Your task to perform on an android device: Is it going to rain today? Image 0: 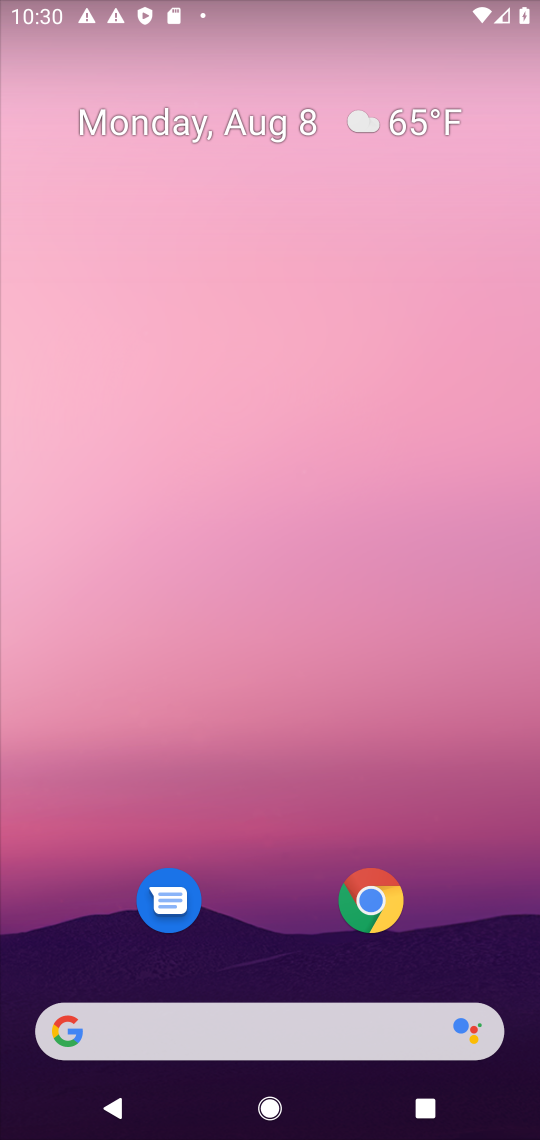
Step 0: drag from (255, 951) to (188, 1030)
Your task to perform on an android device: Is it going to rain today? Image 1: 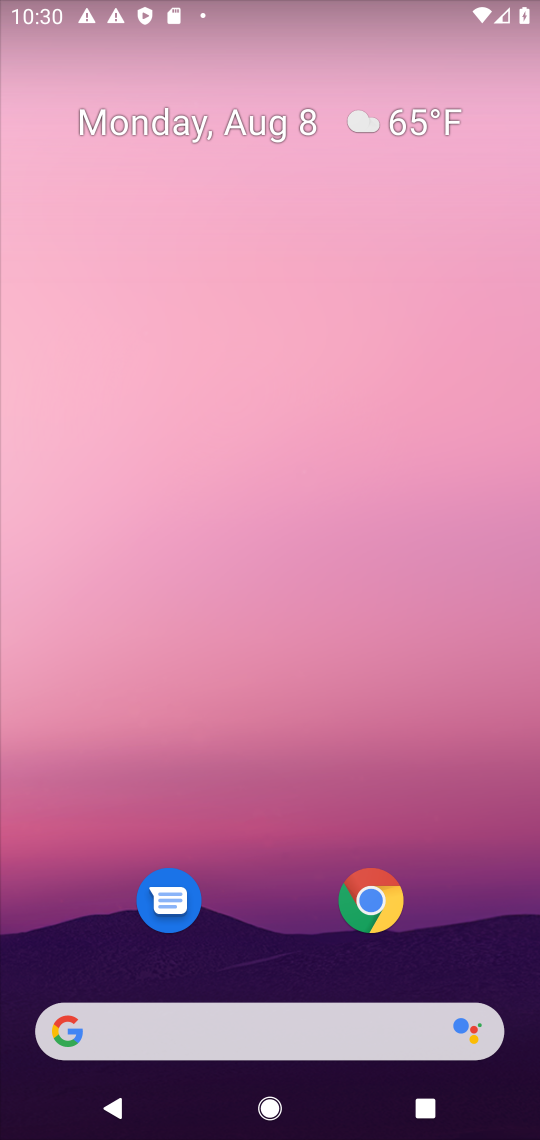
Step 1: click (188, 1030)
Your task to perform on an android device: Is it going to rain today? Image 2: 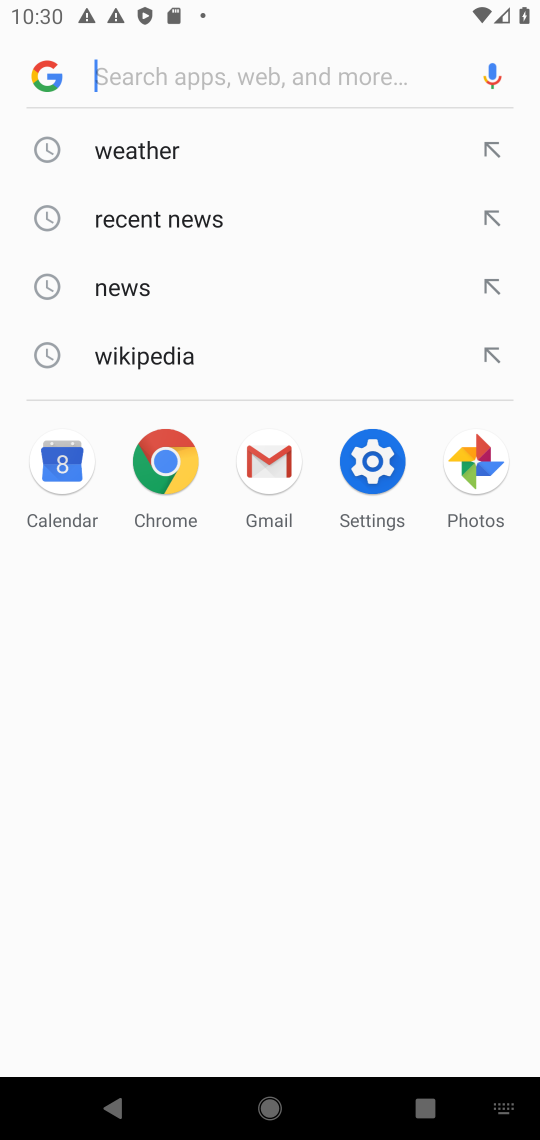
Step 2: click (149, 153)
Your task to perform on an android device: Is it going to rain today? Image 3: 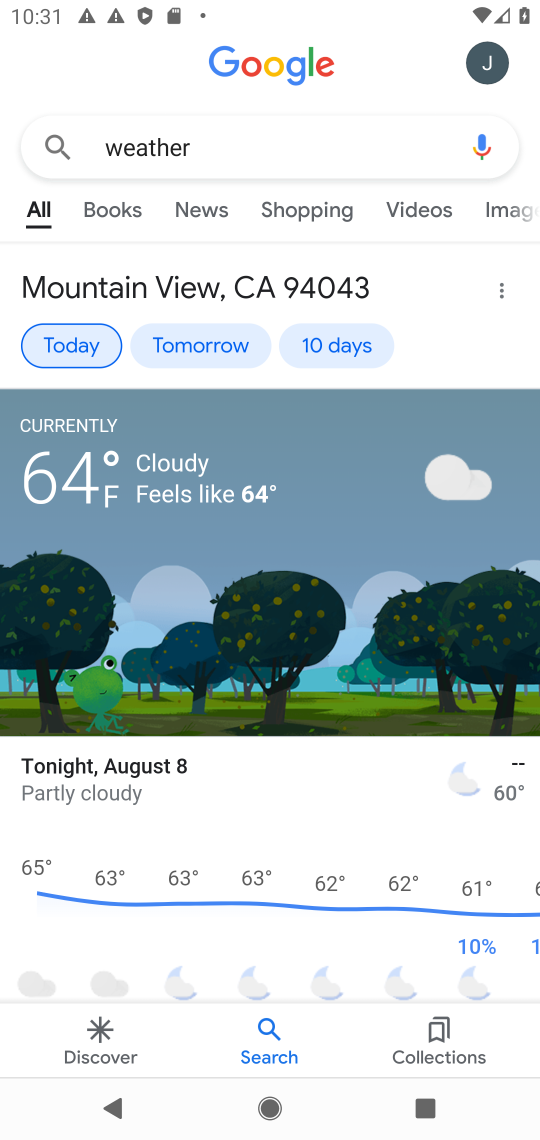
Step 3: task complete